Your task to perform on an android device: snooze an email in the gmail app Image 0: 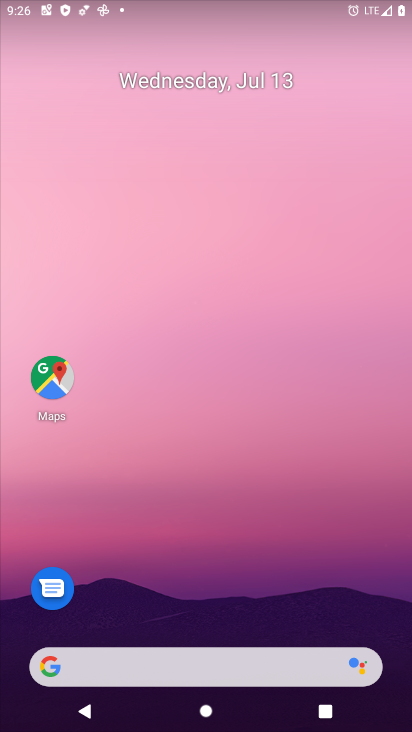
Step 0: drag from (160, 609) to (256, 171)
Your task to perform on an android device: snooze an email in the gmail app Image 1: 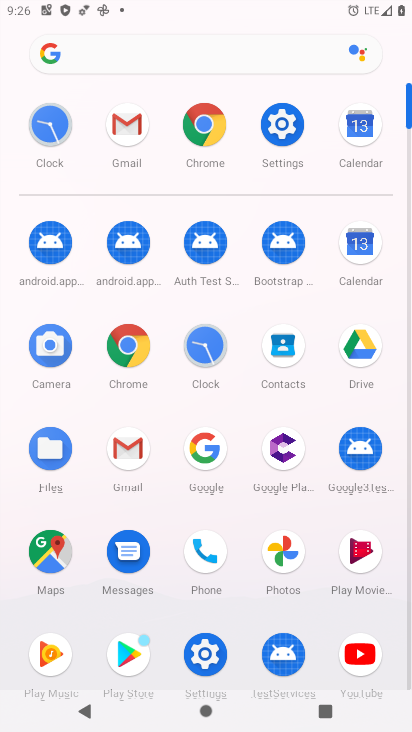
Step 1: click (137, 111)
Your task to perform on an android device: snooze an email in the gmail app Image 2: 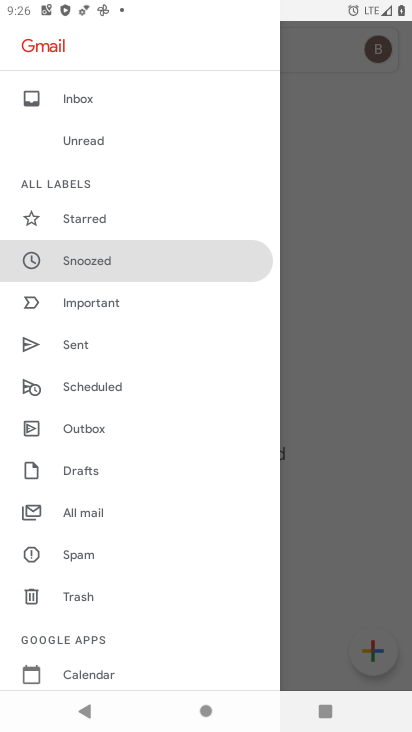
Step 2: click (107, 518)
Your task to perform on an android device: snooze an email in the gmail app Image 3: 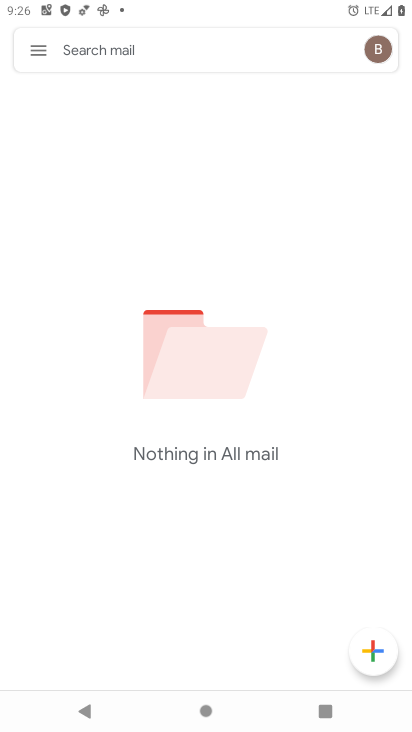
Step 3: task complete